Your task to perform on an android device: Do I have any events tomorrow? Image 0: 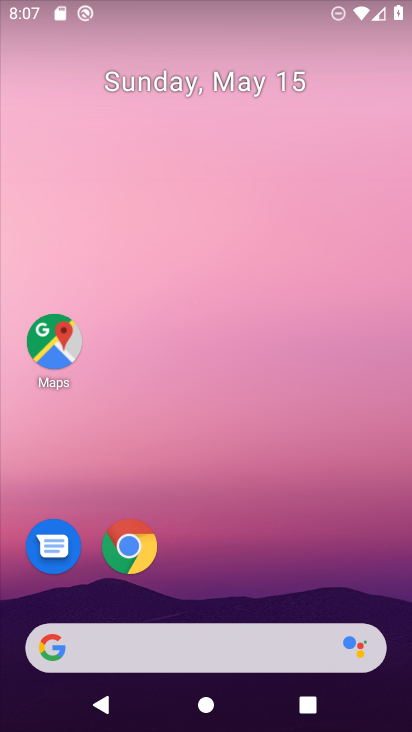
Step 0: drag from (241, 526) to (289, 29)
Your task to perform on an android device: Do I have any events tomorrow? Image 1: 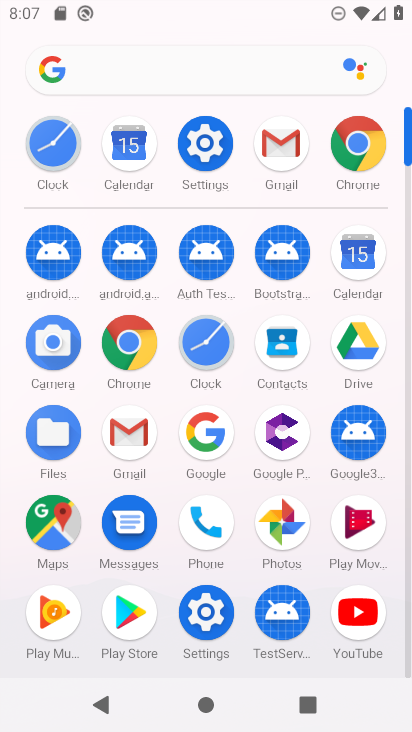
Step 1: click (123, 153)
Your task to perform on an android device: Do I have any events tomorrow? Image 2: 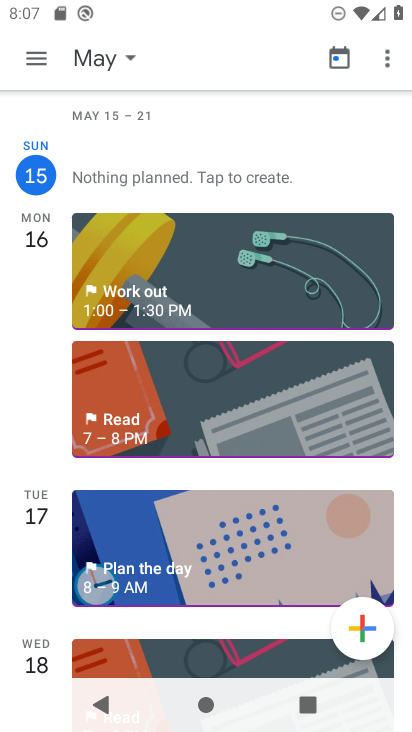
Step 2: task complete